Your task to perform on an android device: Go to CNN.com Image 0: 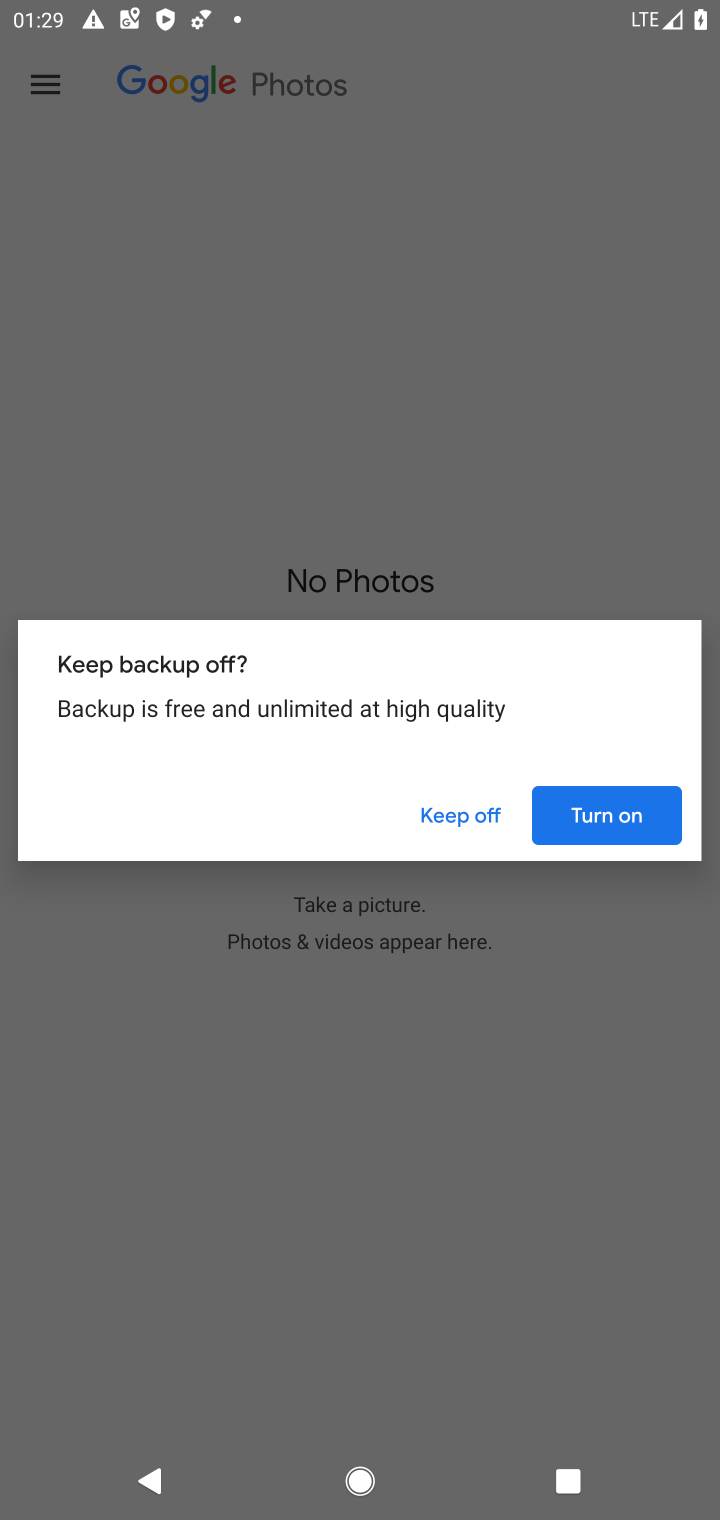
Step 0: press home button
Your task to perform on an android device: Go to CNN.com Image 1: 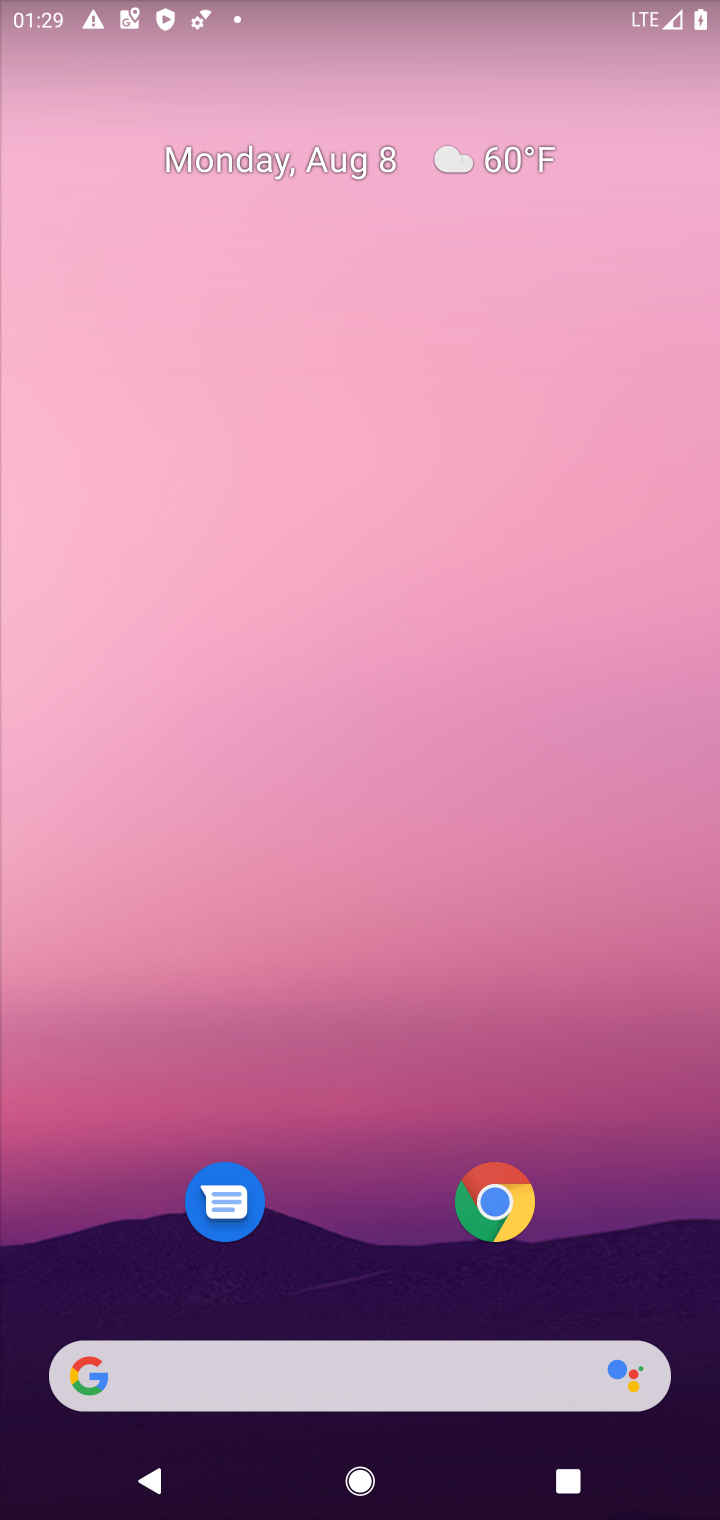
Step 1: click (498, 1223)
Your task to perform on an android device: Go to CNN.com Image 2: 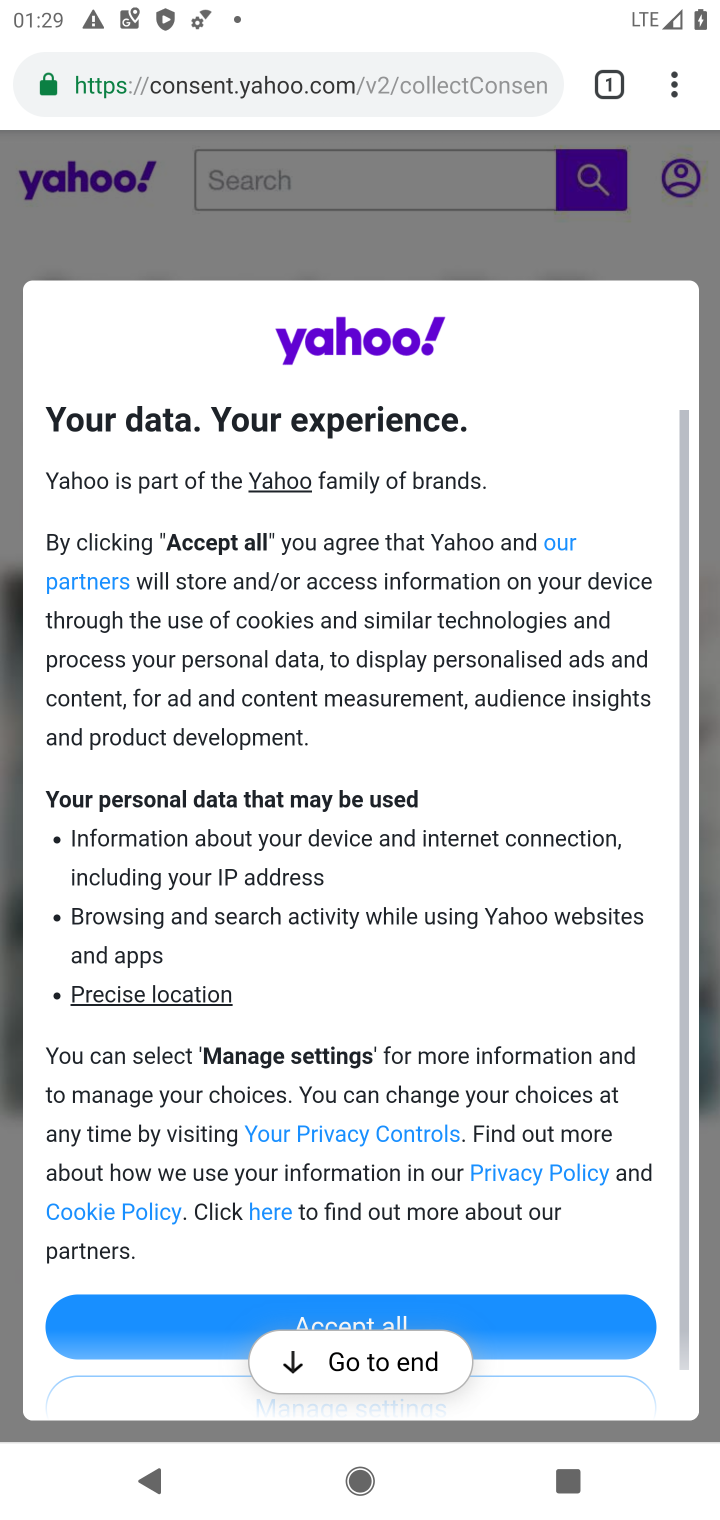
Step 2: click (305, 85)
Your task to perform on an android device: Go to CNN.com Image 3: 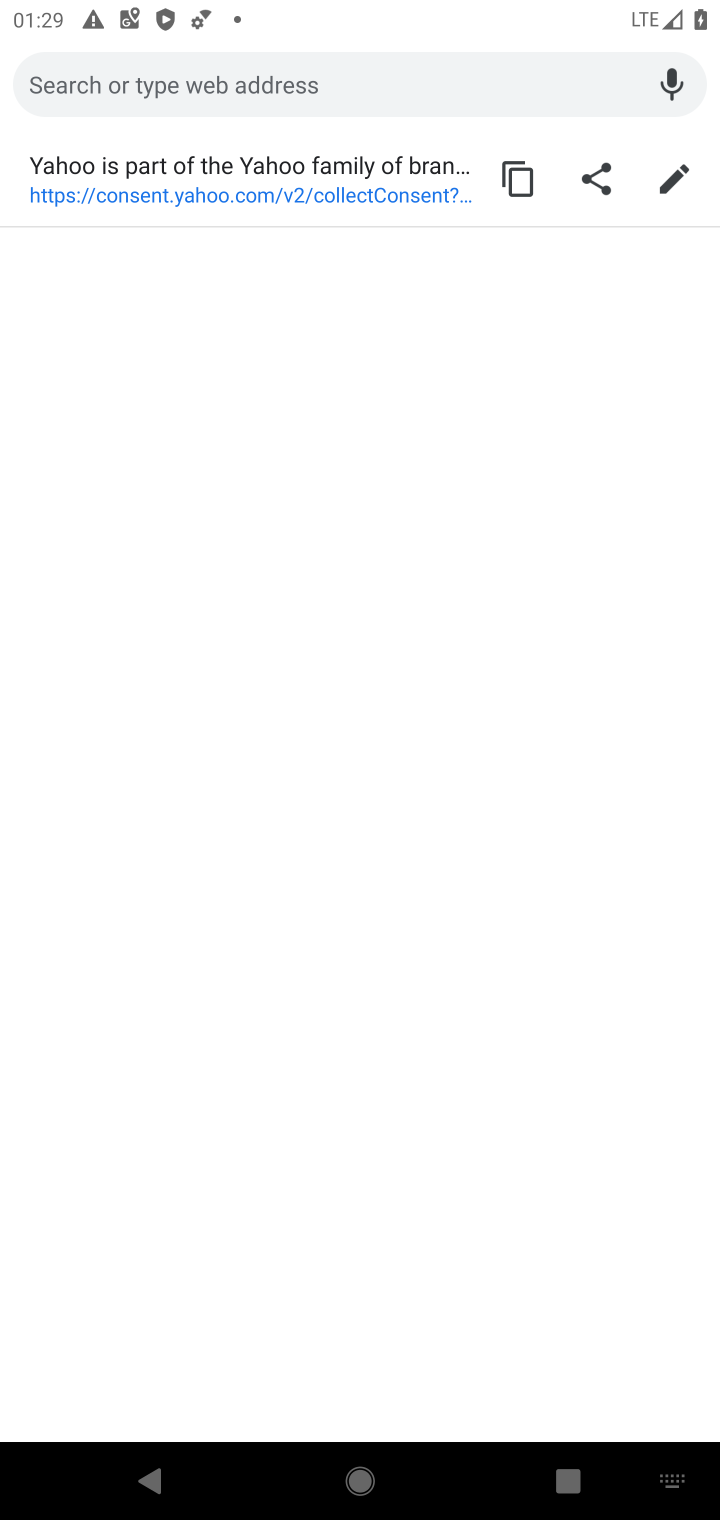
Step 3: type "www.cnn.com"
Your task to perform on an android device: Go to CNN.com Image 4: 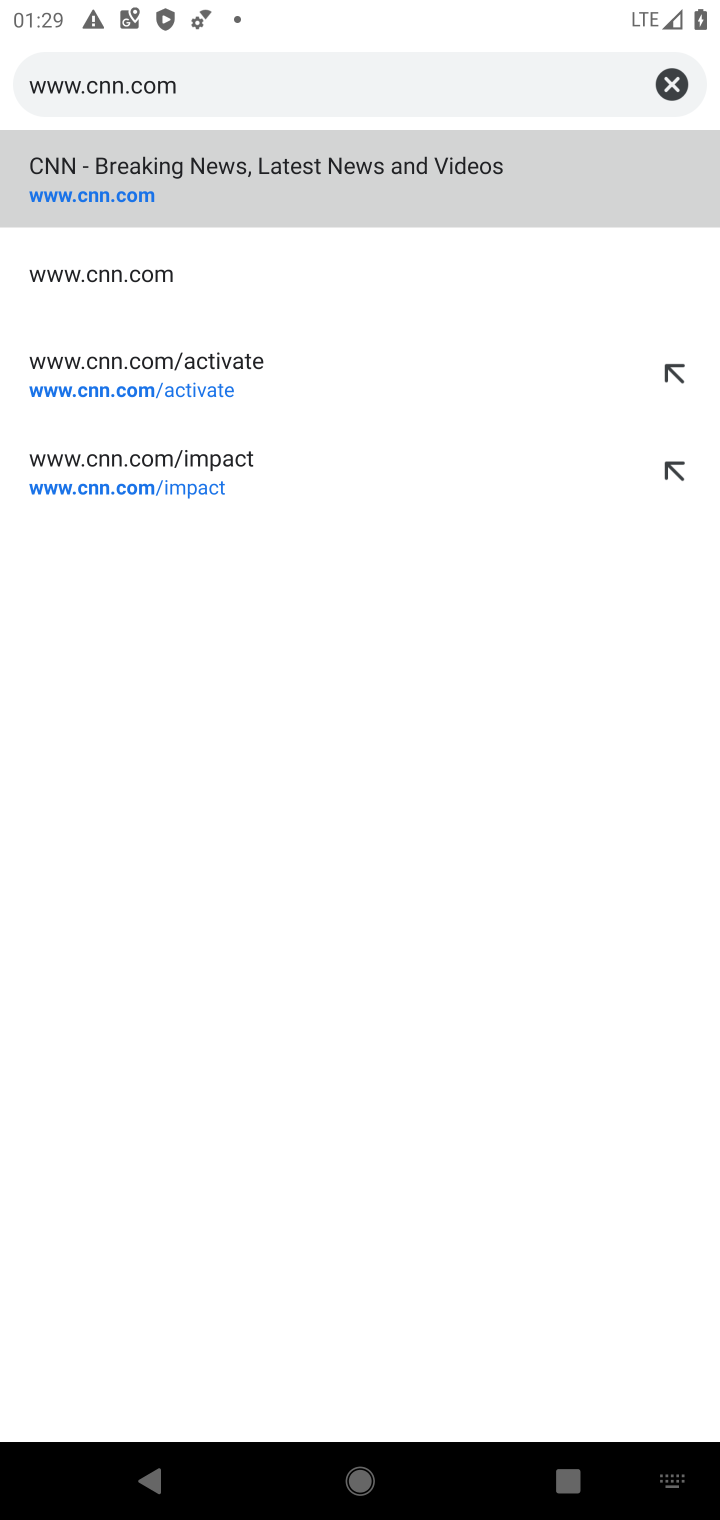
Step 4: click (116, 193)
Your task to perform on an android device: Go to CNN.com Image 5: 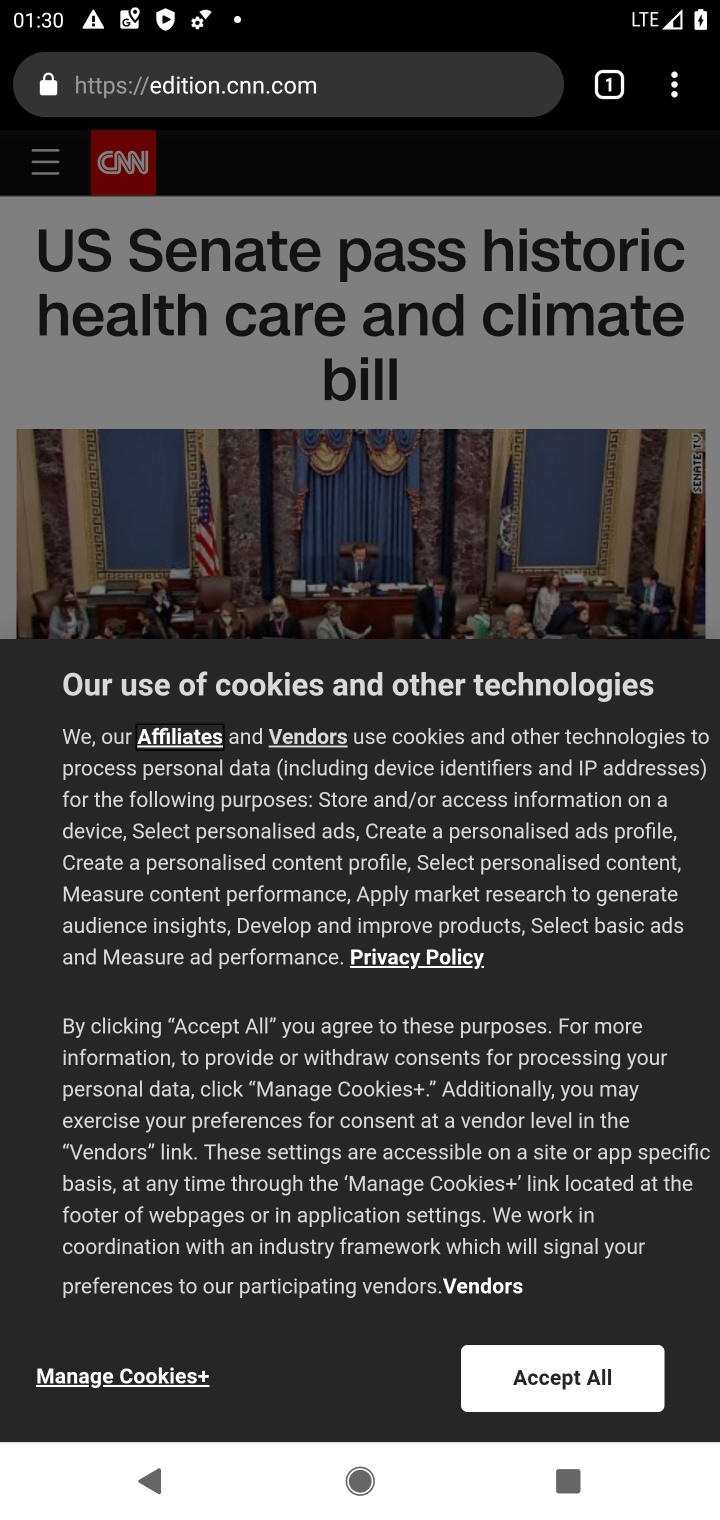
Step 5: task complete